Your task to perform on an android device: Play the last video I watched on Youtube Image 0: 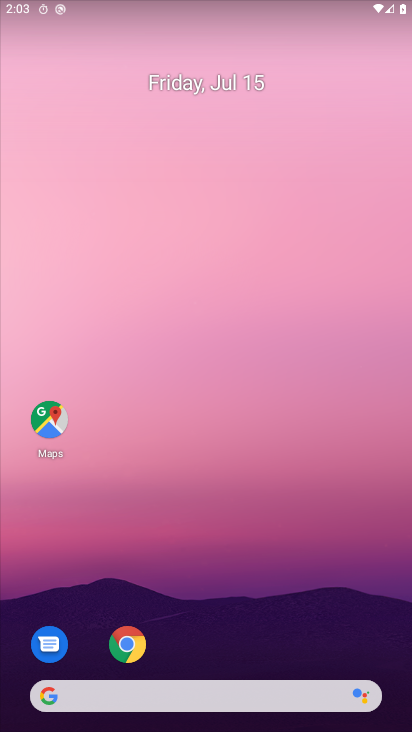
Step 0: press home button
Your task to perform on an android device: Play the last video I watched on Youtube Image 1: 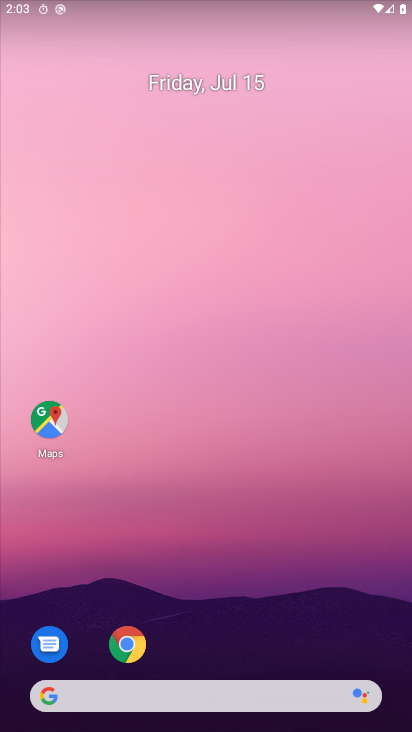
Step 1: drag from (65, 512) to (212, 196)
Your task to perform on an android device: Play the last video I watched on Youtube Image 2: 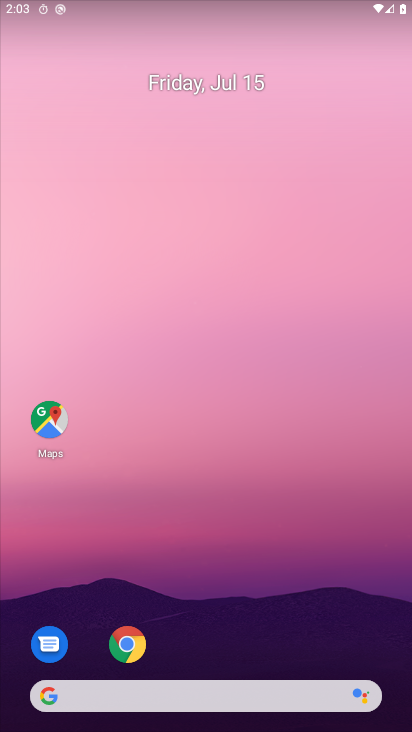
Step 2: drag from (5, 651) to (287, 12)
Your task to perform on an android device: Play the last video I watched on Youtube Image 3: 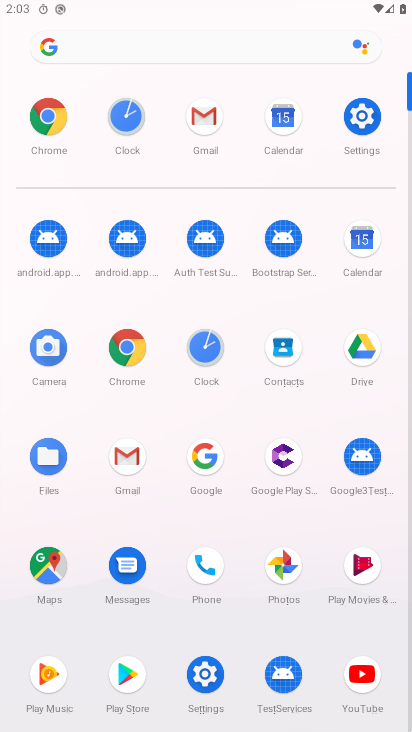
Step 3: click (378, 674)
Your task to perform on an android device: Play the last video I watched on Youtube Image 4: 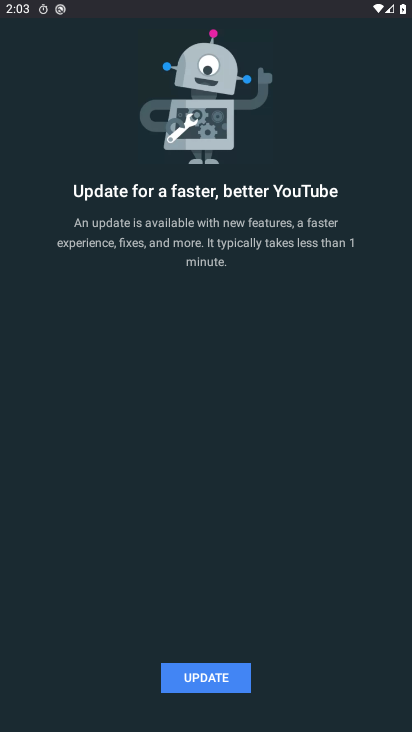
Step 4: task complete